Your task to perform on an android device: Open my contact list Image 0: 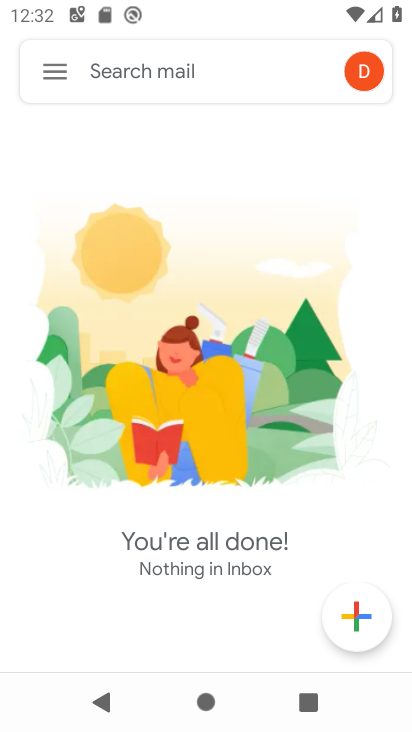
Step 0: press home button
Your task to perform on an android device: Open my contact list Image 1: 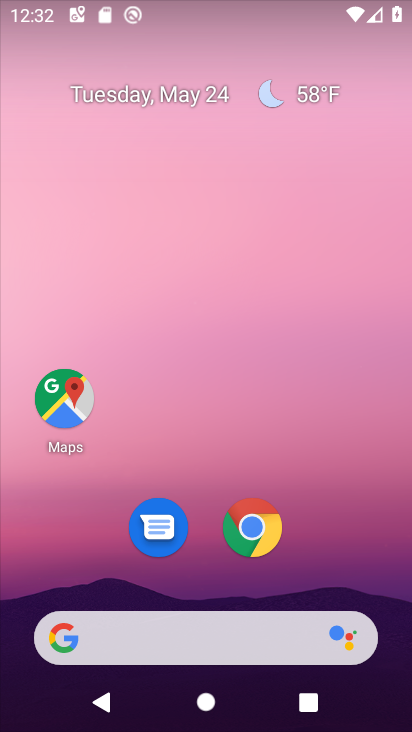
Step 1: drag from (384, 536) to (328, 232)
Your task to perform on an android device: Open my contact list Image 2: 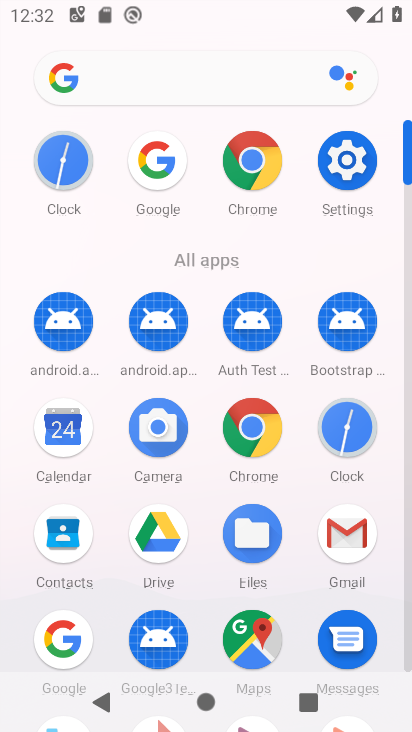
Step 2: click (64, 542)
Your task to perform on an android device: Open my contact list Image 3: 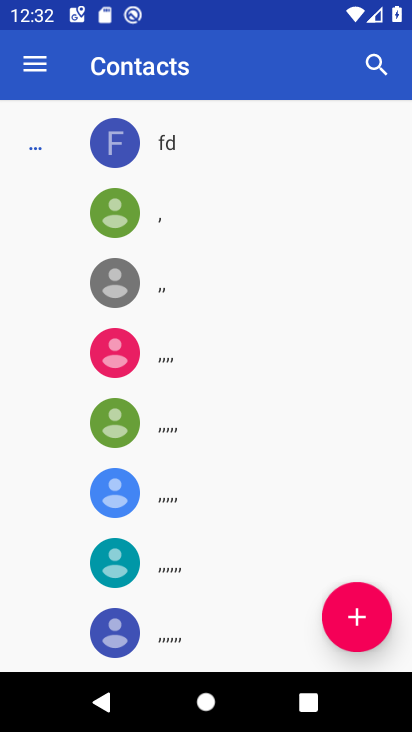
Step 3: task complete